Your task to perform on an android device: see tabs open on other devices in the chrome app Image 0: 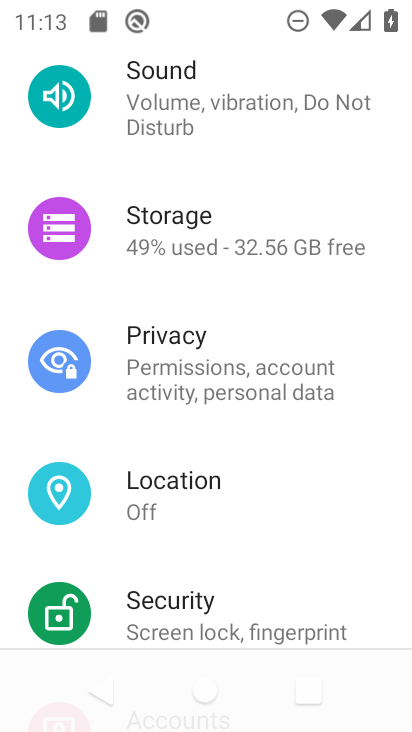
Step 0: press home button
Your task to perform on an android device: see tabs open on other devices in the chrome app Image 1: 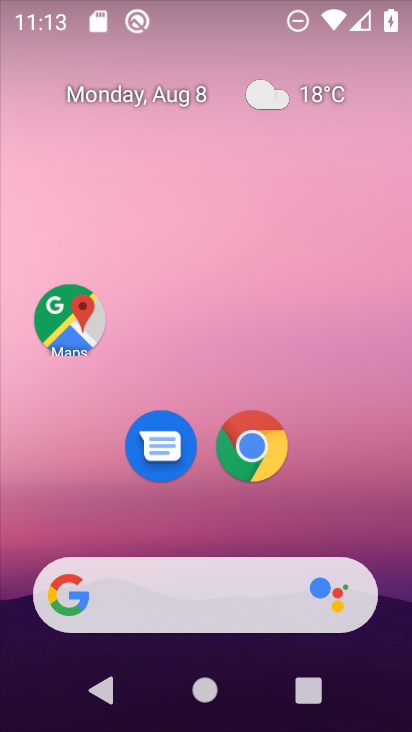
Step 1: click (255, 448)
Your task to perform on an android device: see tabs open on other devices in the chrome app Image 2: 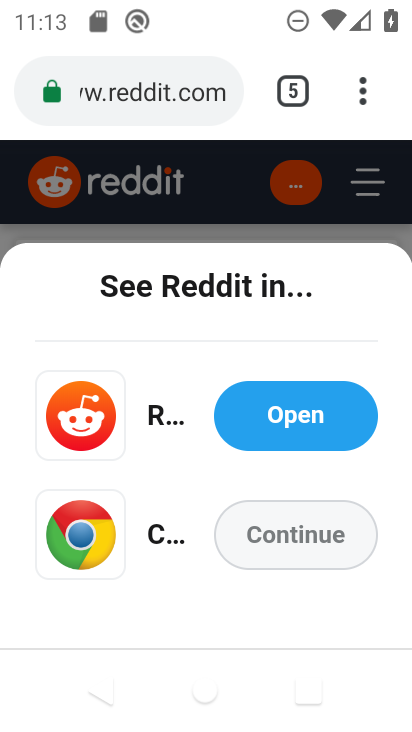
Step 2: click (357, 108)
Your task to perform on an android device: see tabs open on other devices in the chrome app Image 3: 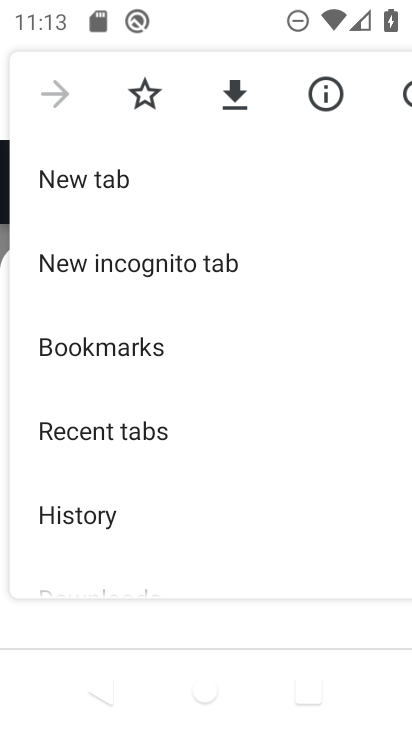
Step 3: click (122, 428)
Your task to perform on an android device: see tabs open on other devices in the chrome app Image 4: 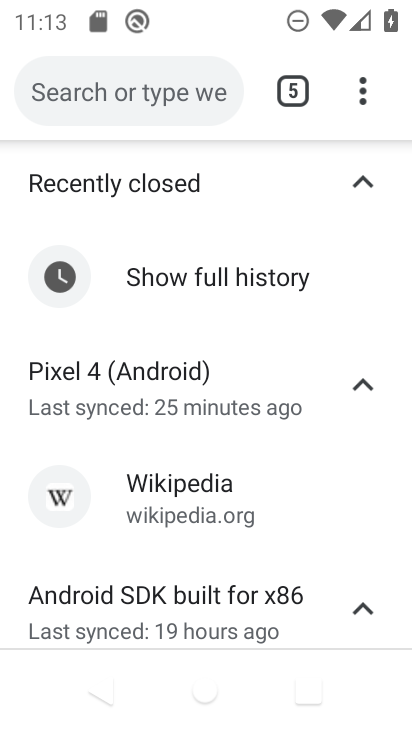
Step 4: task complete